Your task to perform on an android device: open chrome privacy settings Image 0: 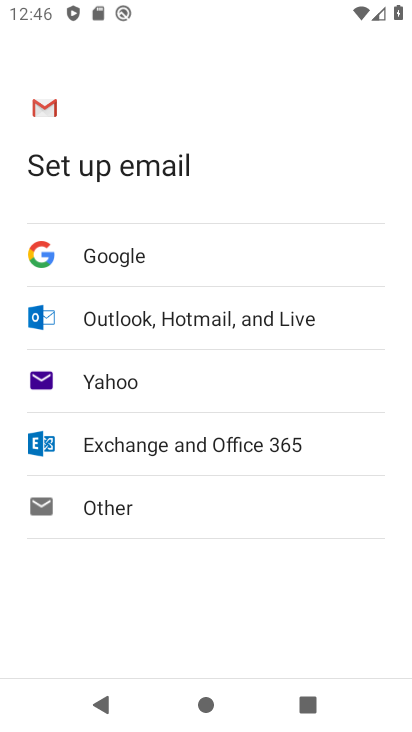
Step 0: press back button
Your task to perform on an android device: open chrome privacy settings Image 1: 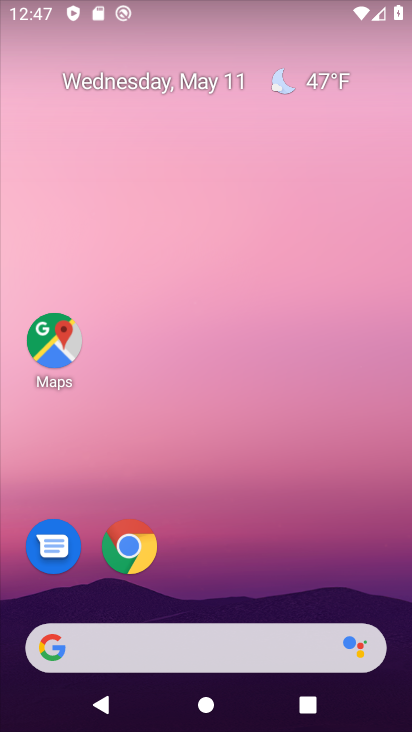
Step 1: click (131, 550)
Your task to perform on an android device: open chrome privacy settings Image 2: 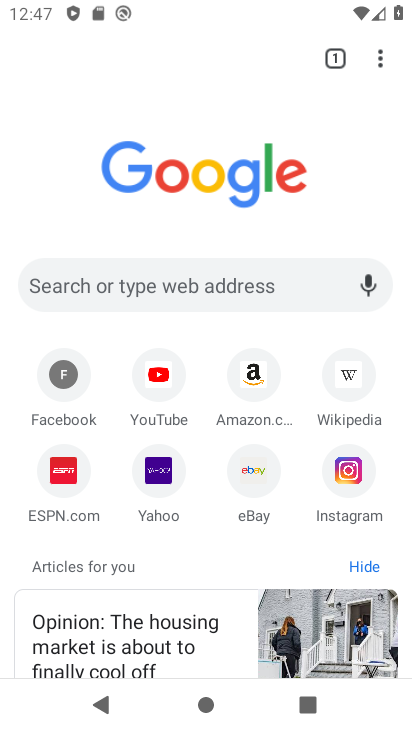
Step 2: drag from (380, 61) to (276, 502)
Your task to perform on an android device: open chrome privacy settings Image 3: 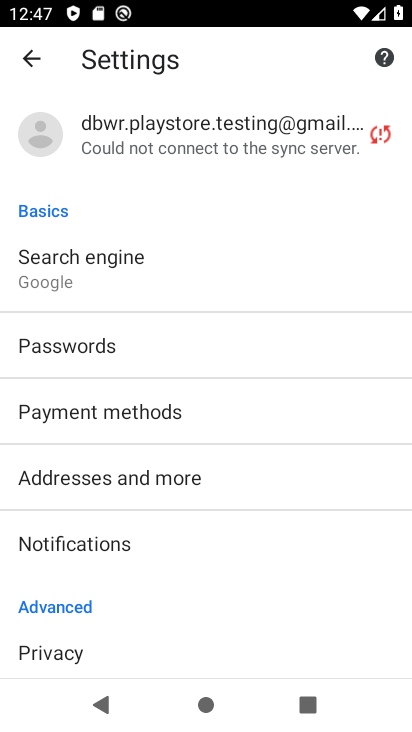
Step 3: click (164, 652)
Your task to perform on an android device: open chrome privacy settings Image 4: 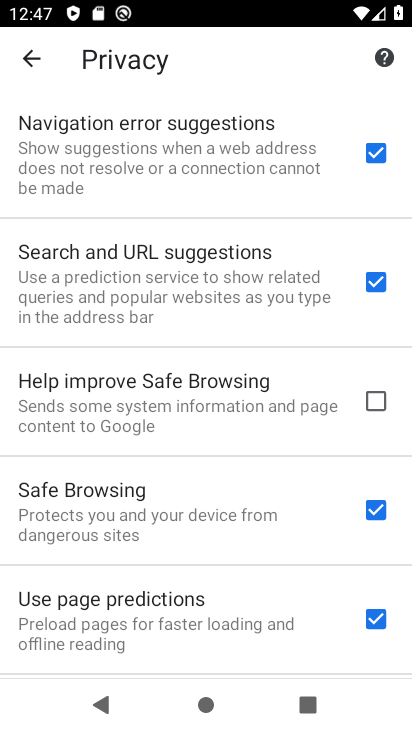
Step 4: task complete